Your task to perform on an android device: turn smart compose on in the gmail app Image 0: 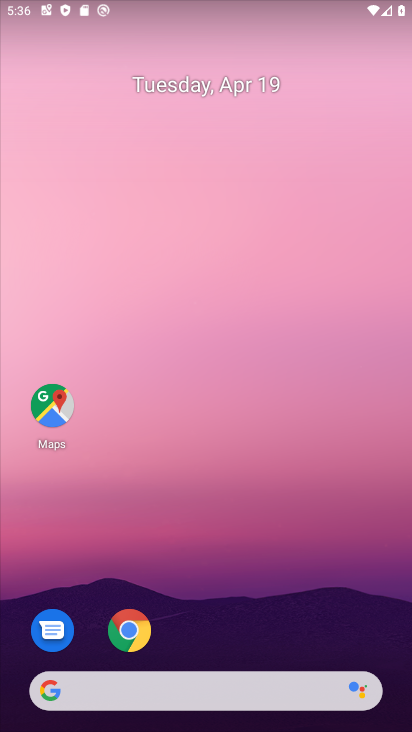
Step 0: drag from (233, 603) to (172, 44)
Your task to perform on an android device: turn smart compose on in the gmail app Image 1: 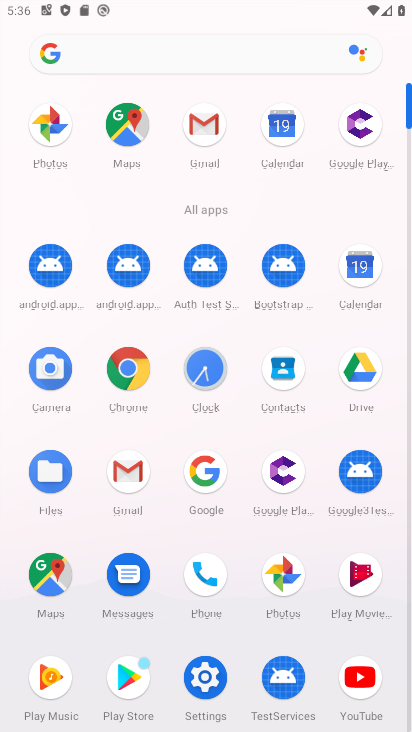
Step 1: click (199, 140)
Your task to perform on an android device: turn smart compose on in the gmail app Image 2: 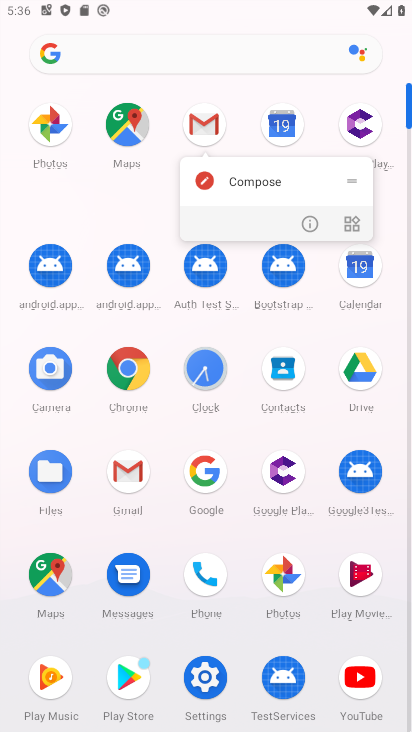
Step 2: click (207, 115)
Your task to perform on an android device: turn smart compose on in the gmail app Image 3: 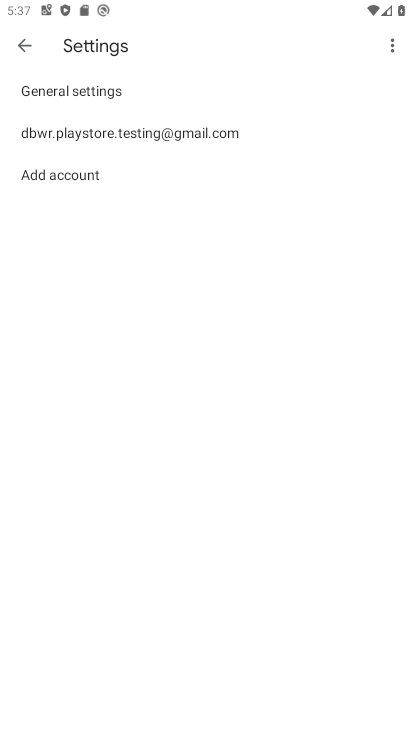
Step 3: click (190, 140)
Your task to perform on an android device: turn smart compose on in the gmail app Image 4: 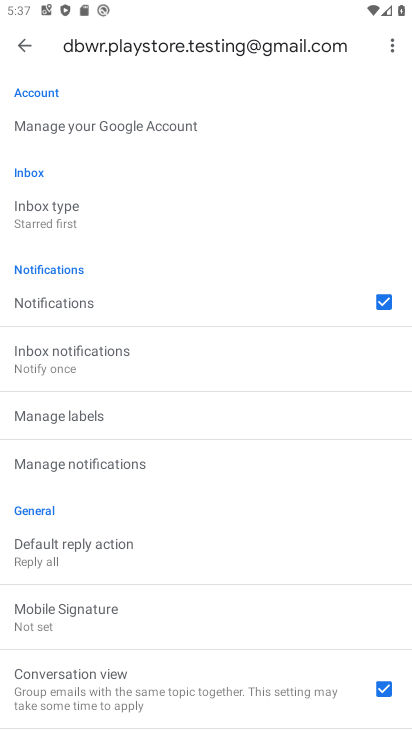
Step 4: task complete